Your task to perform on an android device: open app "Facebook" (install if not already installed) and go to login screen Image 0: 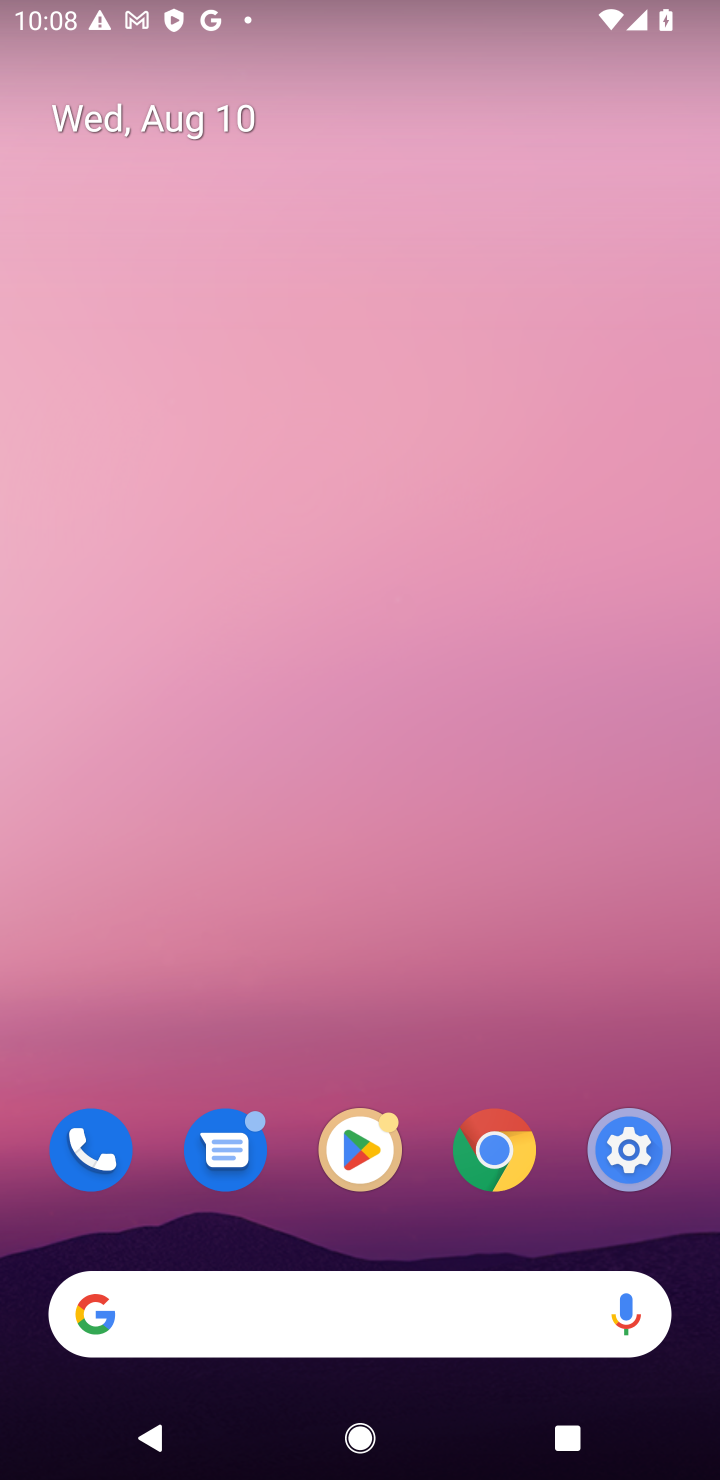
Step 0: click (367, 1146)
Your task to perform on an android device: open app "Facebook" (install if not already installed) and go to login screen Image 1: 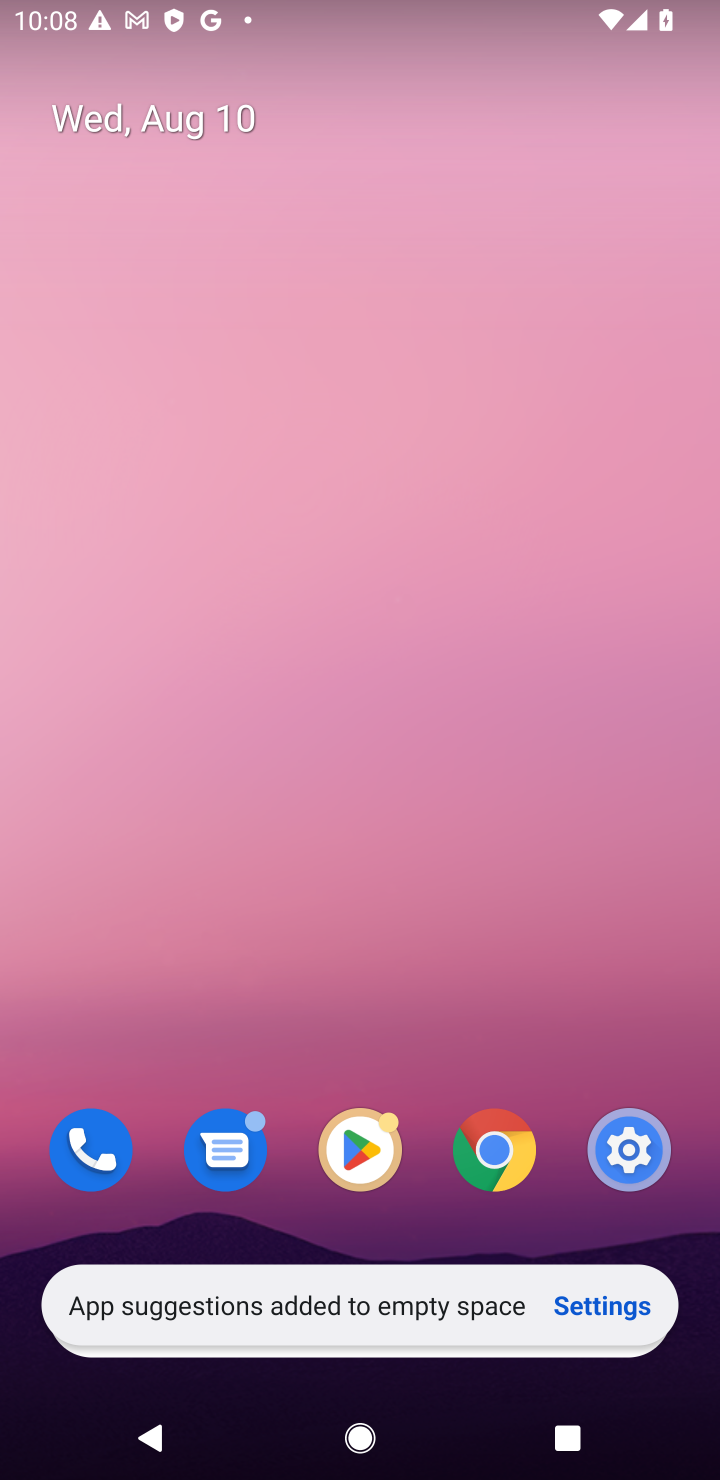
Step 1: click (363, 1142)
Your task to perform on an android device: open app "Facebook" (install if not already installed) and go to login screen Image 2: 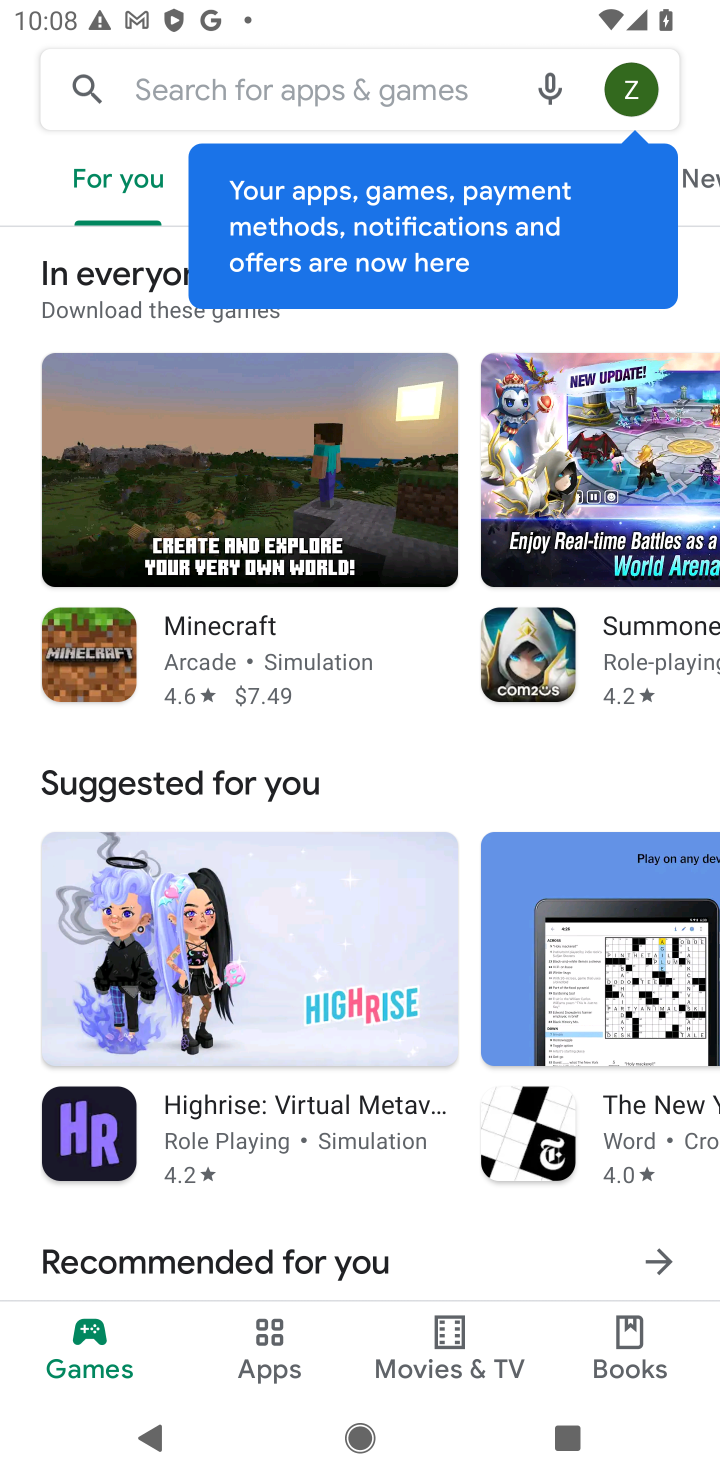
Step 2: click (275, 87)
Your task to perform on an android device: open app "Facebook" (install if not already installed) and go to login screen Image 3: 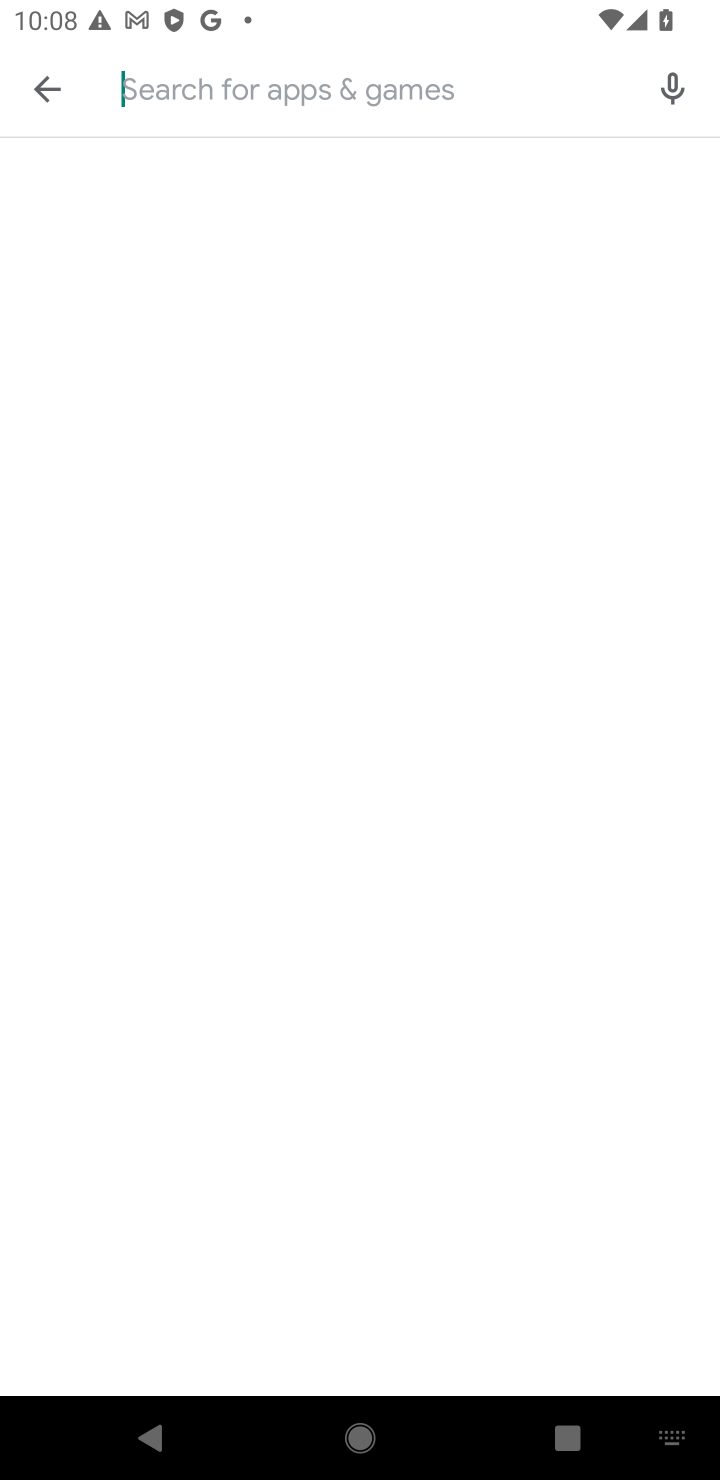
Step 3: type "Facebook"
Your task to perform on an android device: open app "Facebook" (install if not already installed) and go to login screen Image 4: 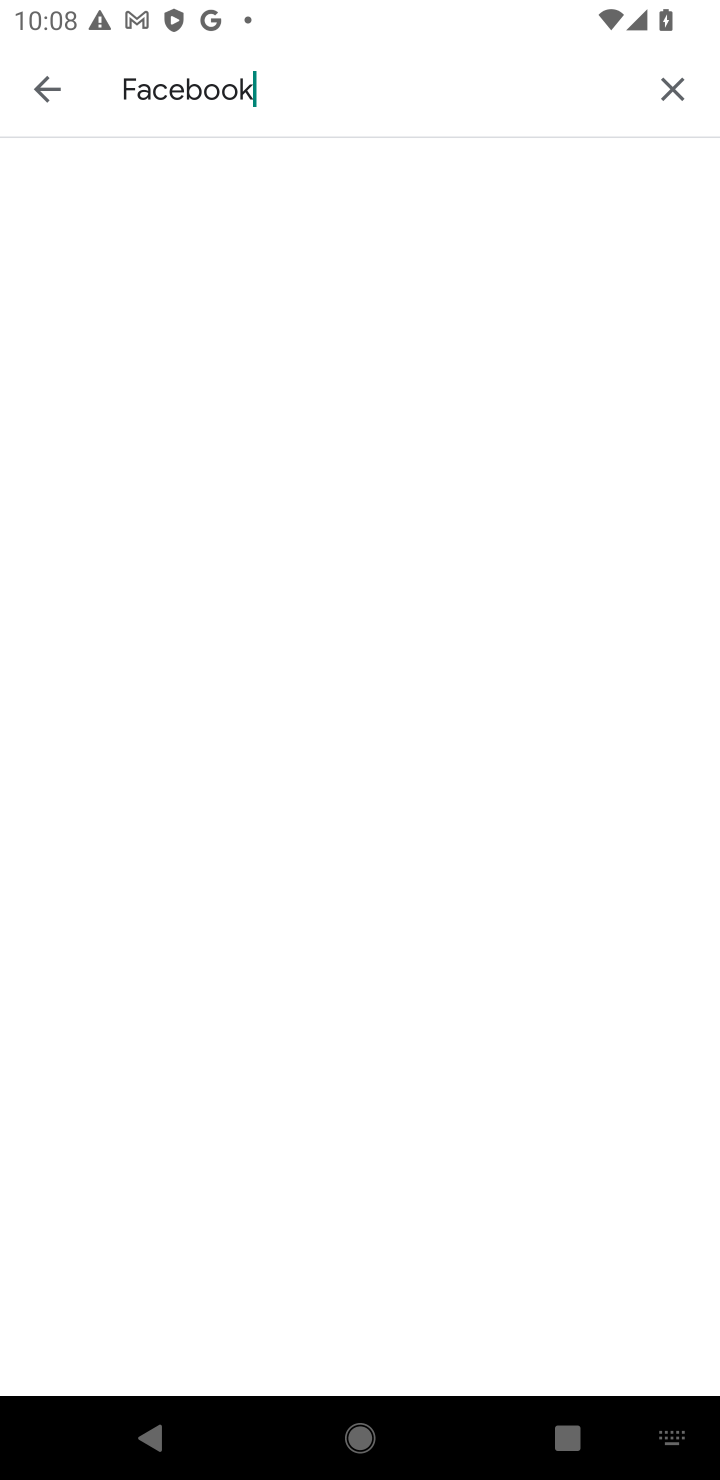
Step 4: type ""
Your task to perform on an android device: open app "Facebook" (install if not already installed) and go to login screen Image 5: 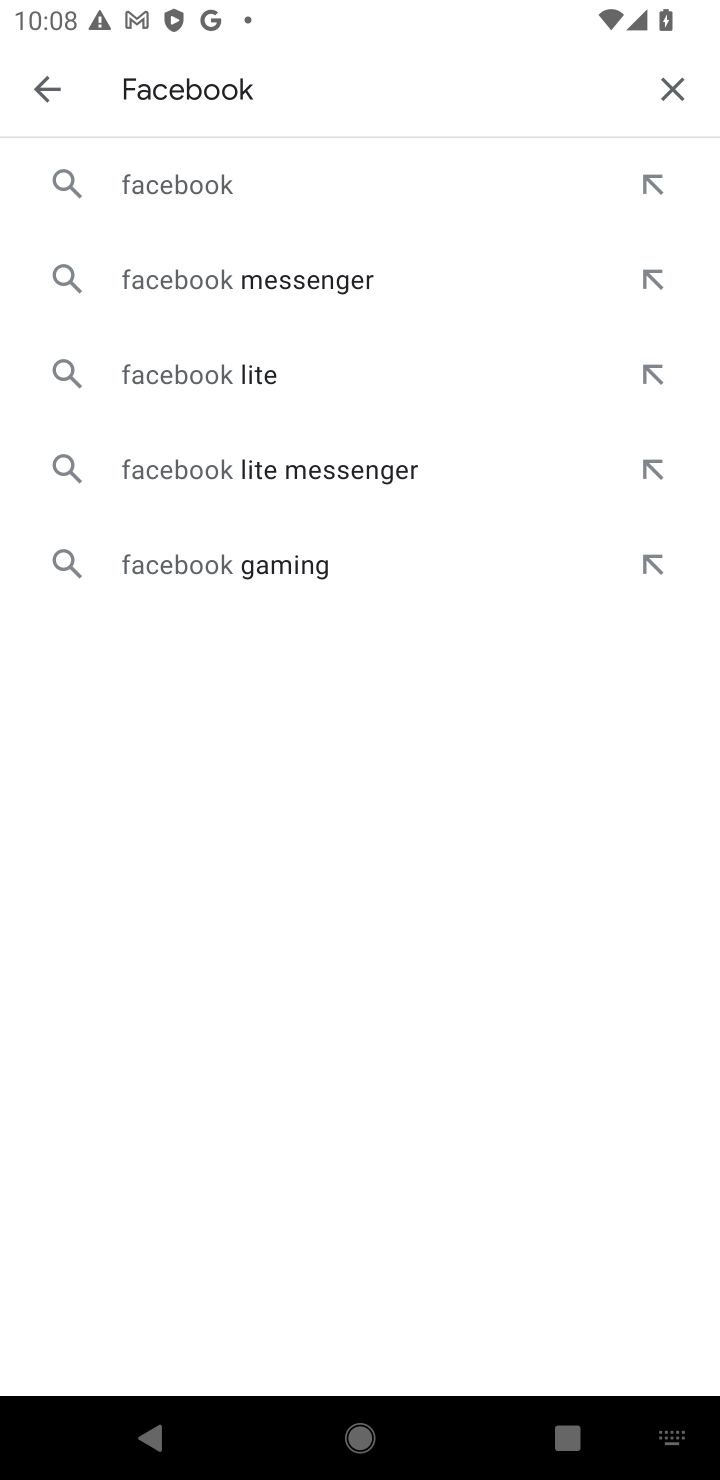
Step 5: click (251, 173)
Your task to perform on an android device: open app "Facebook" (install if not already installed) and go to login screen Image 6: 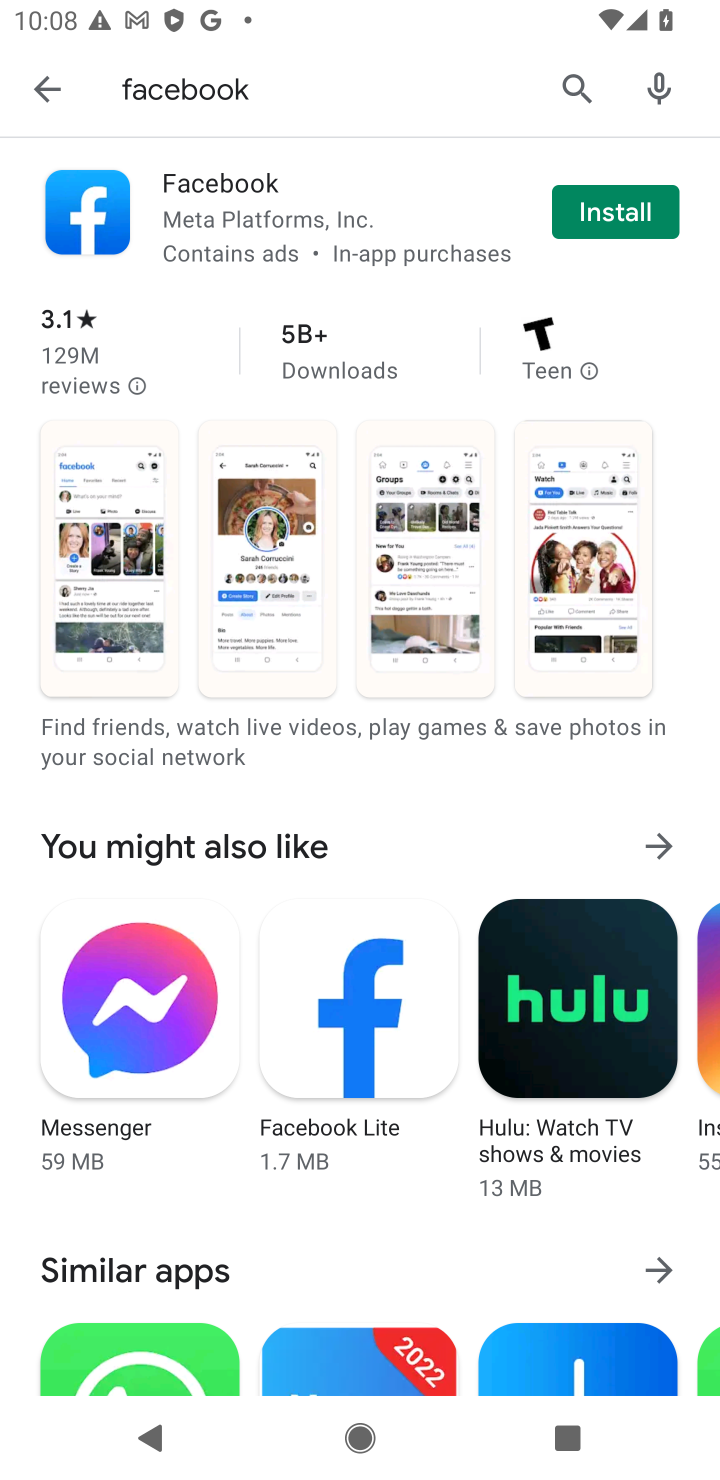
Step 6: click (616, 208)
Your task to perform on an android device: open app "Facebook" (install if not already installed) and go to login screen Image 7: 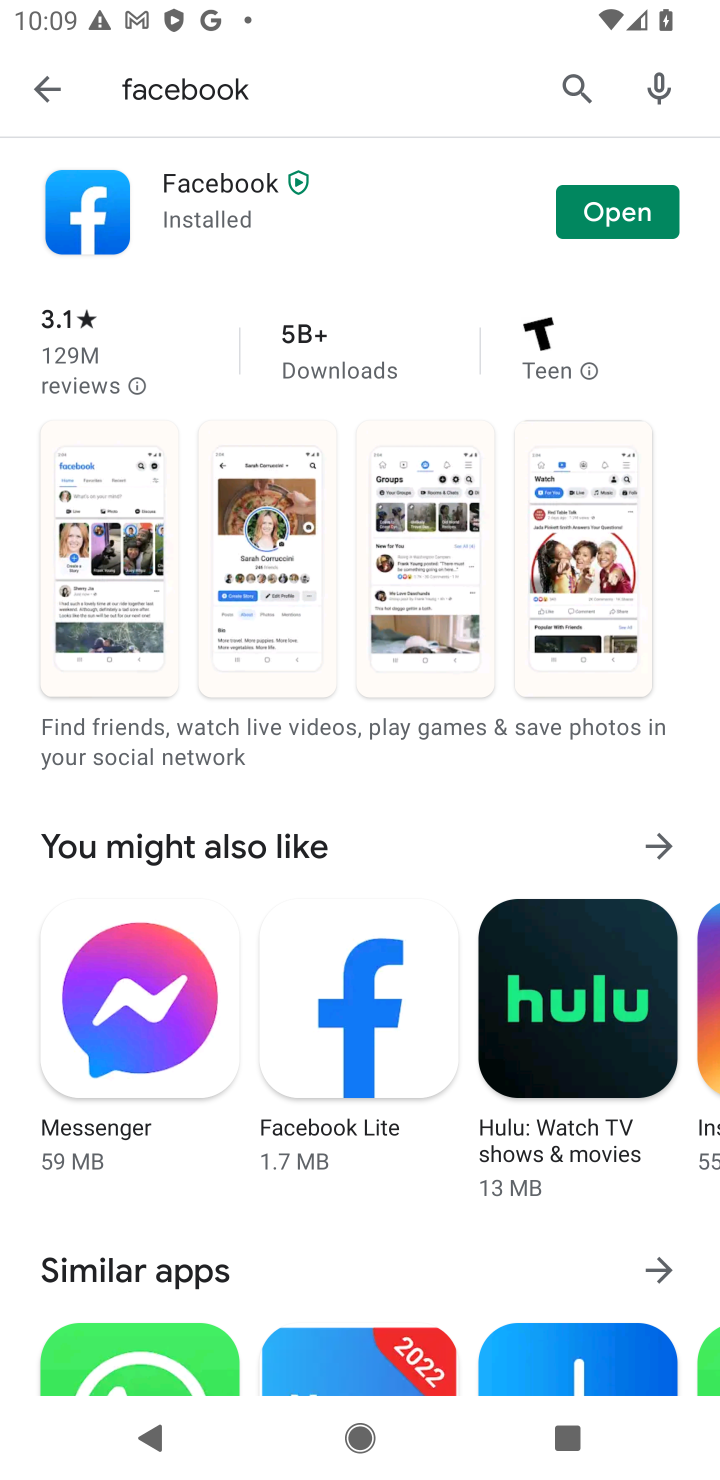
Step 7: click (621, 208)
Your task to perform on an android device: open app "Facebook" (install if not already installed) and go to login screen Image 8: 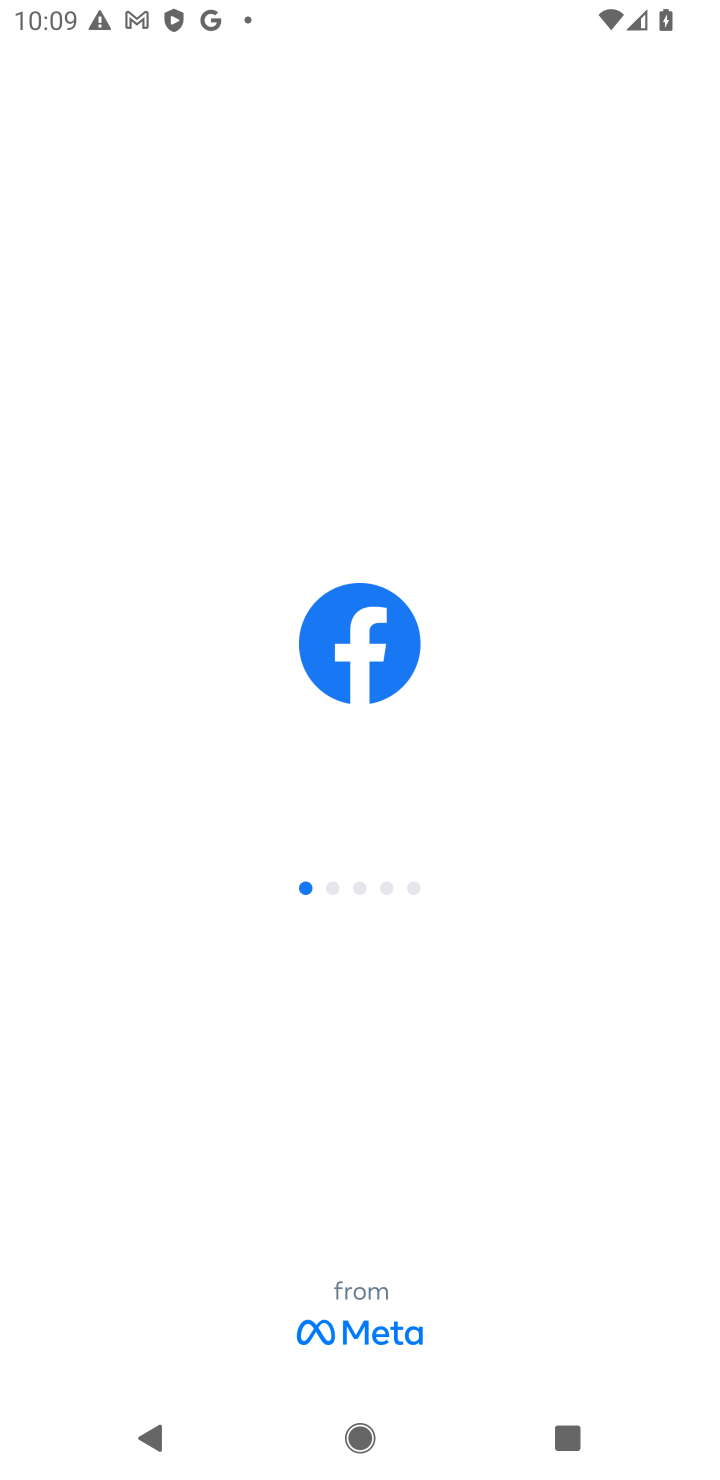
Step 8: task complete